Your task to perform on an android device: Go to ESPN.com Image 0: 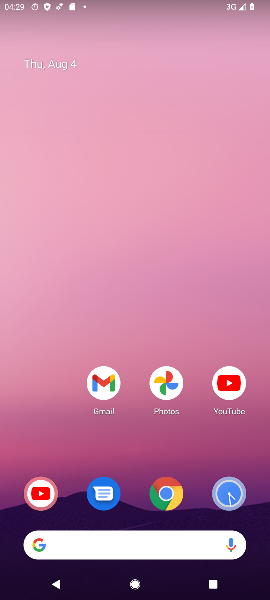
Step 0: click (77, 542)
Your task to perform on an android device: Go to ESPN.com Image 1: 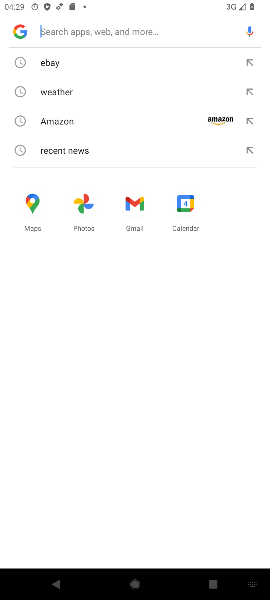
Step 1: type "ESPN.com"
Your task to perform on an android device: Go to ESPN.com Image 2: 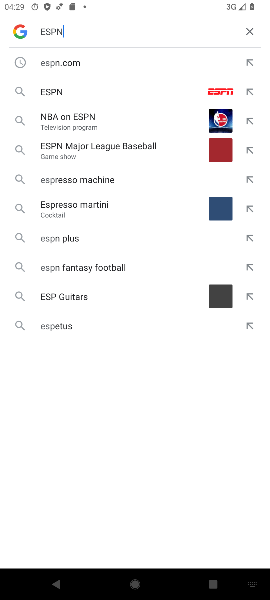
Step 2: type ""
Your task to perform on an android device: Go to ESPN.com Image 3: 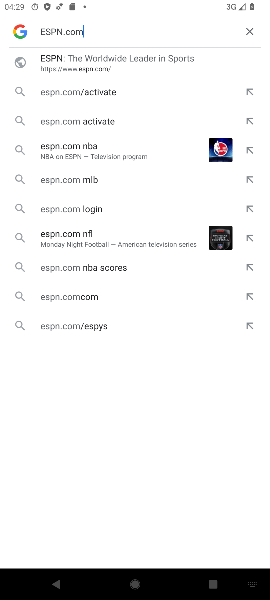
Step 3: click (44, 63)
Your task to perform on an android device: Go to ESPN.com Image 4: 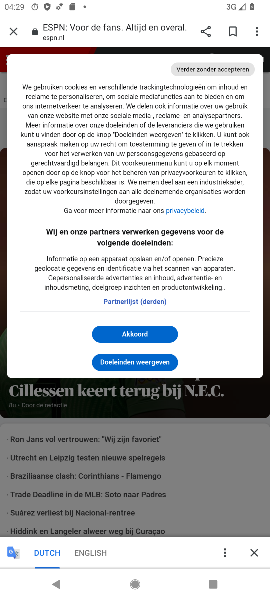
Step 4: task complete